Your task to perform on an android device: remove spam from my inbox in the gmail app Image 0: 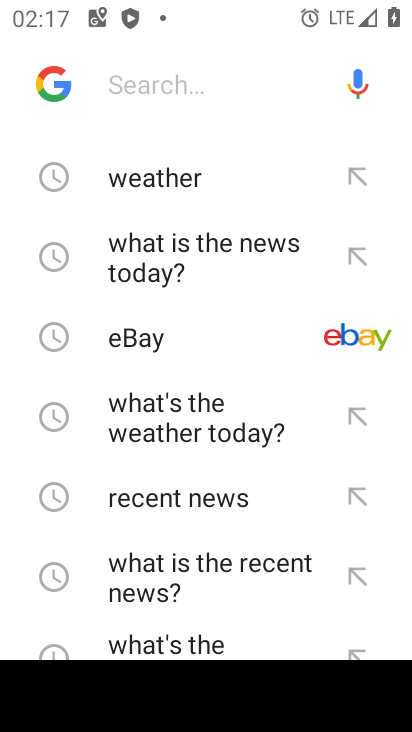
Step 0: press back button
Your task to perform on an android device: remove spam from my inbox in the gmail app Image 1: 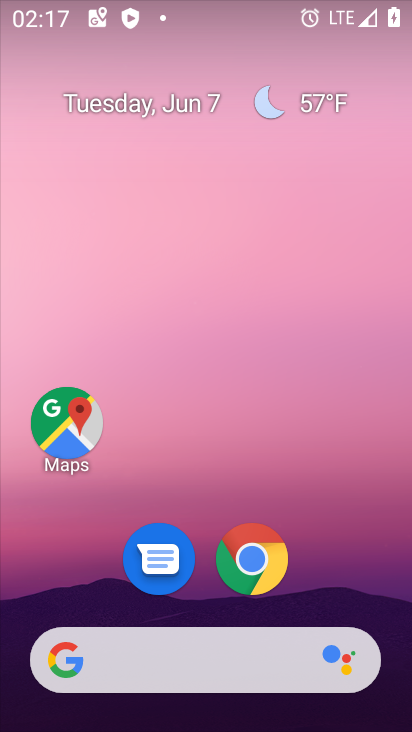
Step 1: drag from (324, 558) to (274, 63)
Your task to perform on an android device: remove spam from my inbox in the gmail app Image 2: 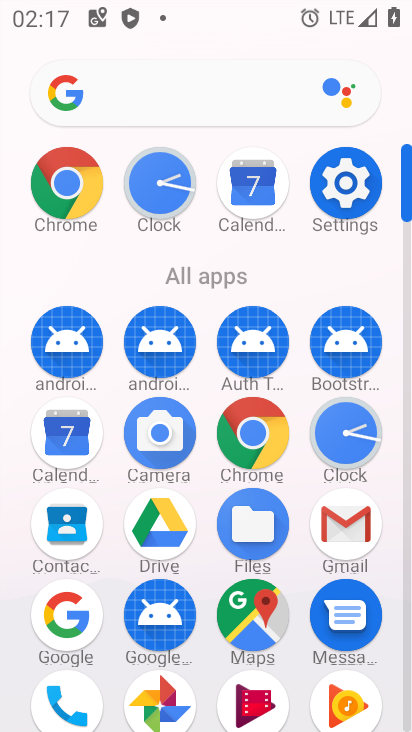
Step 2: drag from (305, 309) to (304, 127)
Your task to perform on an android device: remove spam from my inbox in the gmail app Image 3: 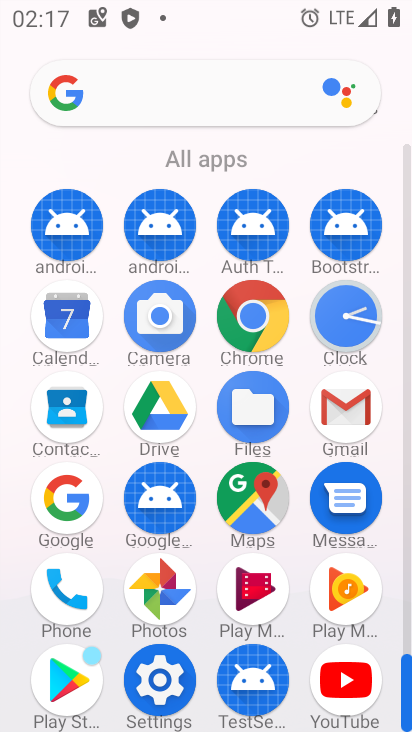
Step 3: click (342, 407)
Your task to perform on an android device: remove spam from my inbox in the gmail app Image 4: 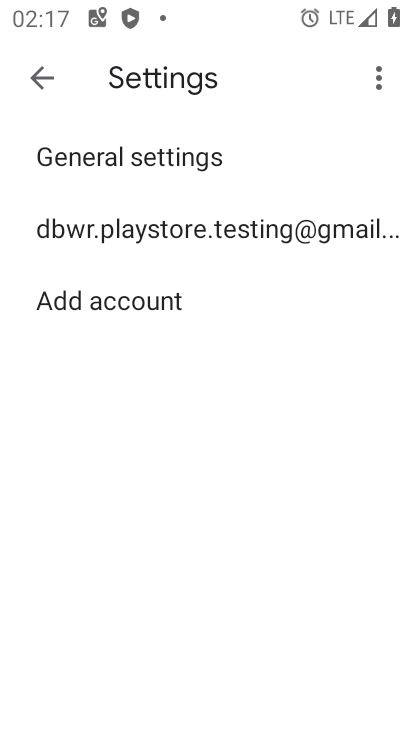
Step 4: click (51, 72)
Your task to perform on an android device: remove spam from my inbox in the gmail app Image 5: 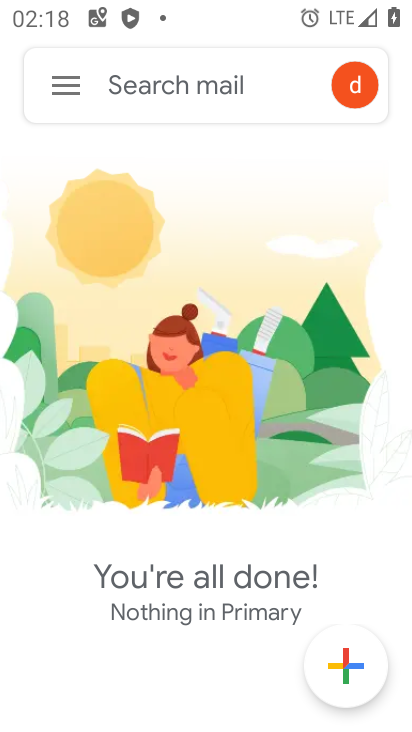
Step 5: click (60, 83)
Your task to perform on an android device: remove spam from my inbox in the gmail app Image 6: 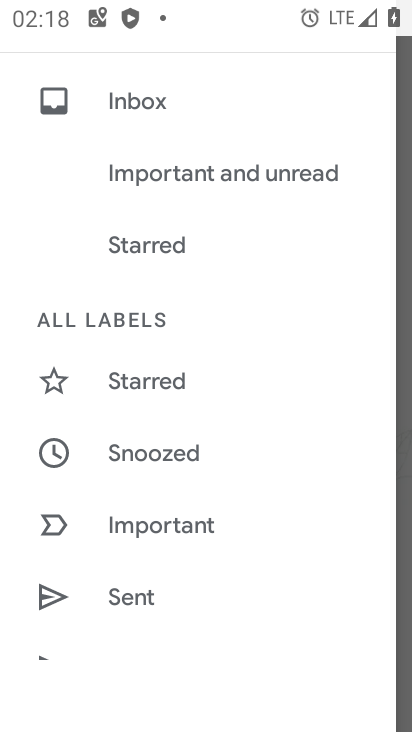
Step 6: drag from (169, 500) to (198, 388)
Your task to perform on an android device: remove spam from my inbox in the gmail app Image 7: 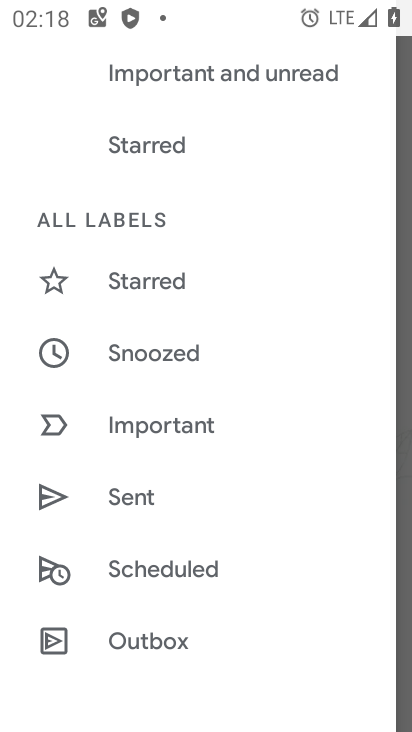
Step 7: drag from (183, 467) to (174, 315)
Your task to perform on an android device: remove spam from my inbox in the gmail app Image 8: 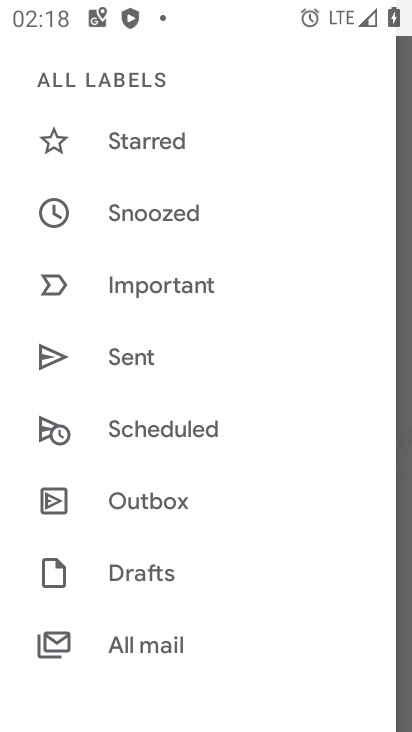
Step 8: drag from (156, 398) to (161, 275)
Your task to perform on an android device: remove spam from my inbox in the gmail app Image 9: 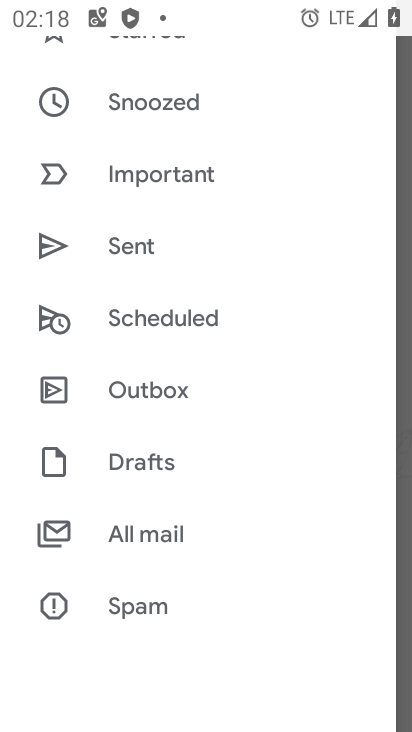
Step 9: drag from (148, 433) to (165, 320)
Your task to perform on an android device: remove spam from my inbox in the gmail app Image 10: 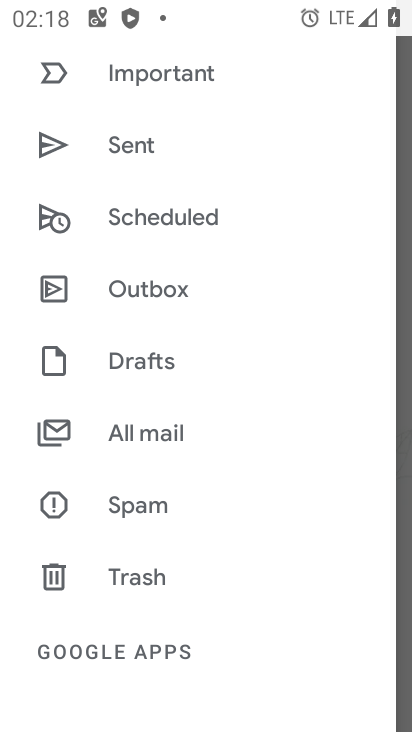
Step 10: drag from (142, 398) to (161, 273)
Your task to perform on an android device: remove spam from my inbox in the gmail app Image 11: 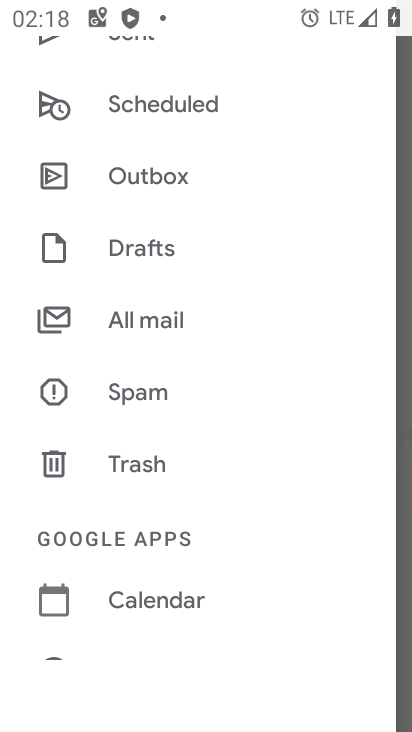
Step 11: click (163, 400)
Your task to perform on an android device: remove spam from my inbox in the gmail app Image 12: 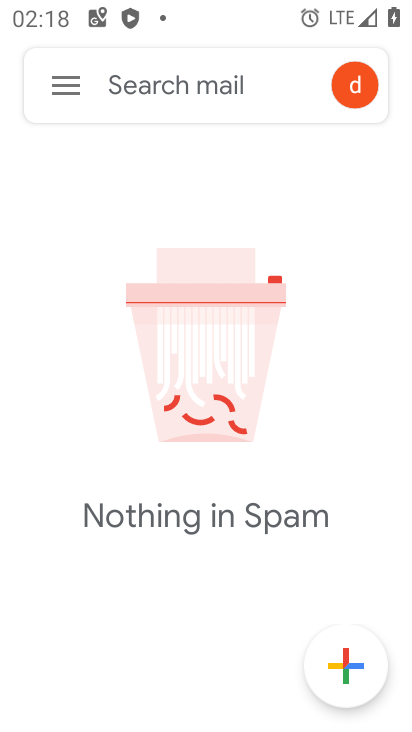
Step 12: task complete